Your task to perform on an android device: Open the calendar and show me this week's events? Image 0: 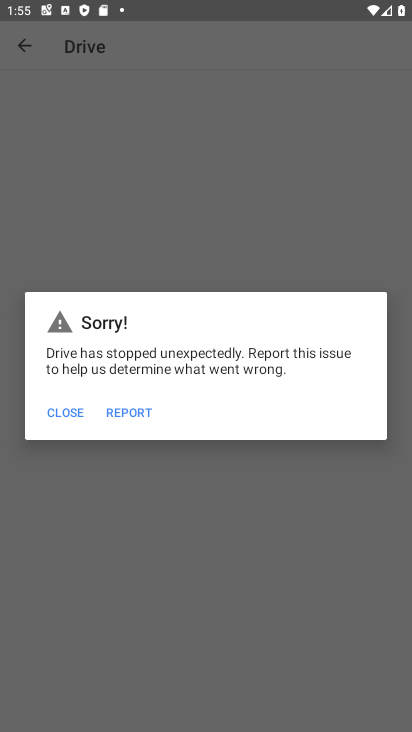
Step 0: press home button
Your task to perform on an android device: Open the calendar and show me this week's events? Image 1: 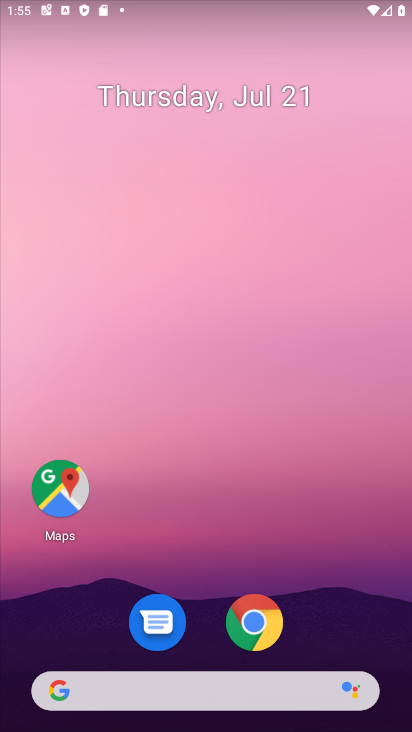
Step 1: drag from (294, 705) to (246, 254)
Your task to perform on an android device: Open the calendar and show me this week's events? Image 2: 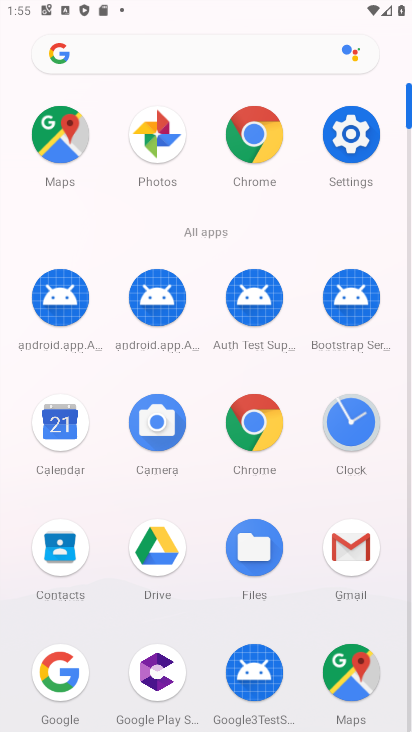
Step 2: click (352, 424)
Your task to perform on an android device: Open the calendar and show me this week's events? Image 3: 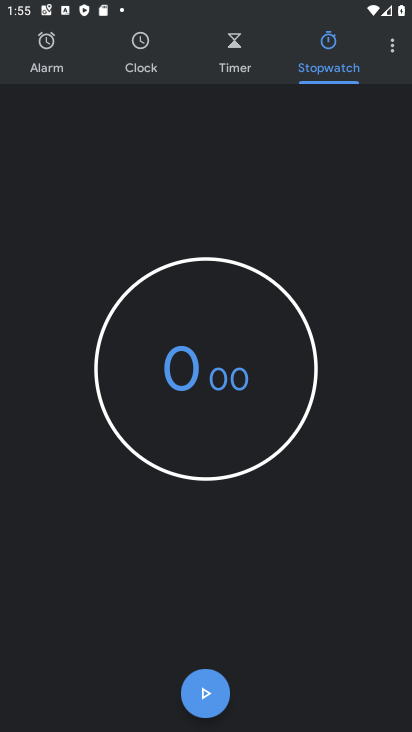
Step 3: press home button
Your task to perform on an android device: Open the calendar and show me this week's events? Image 4: 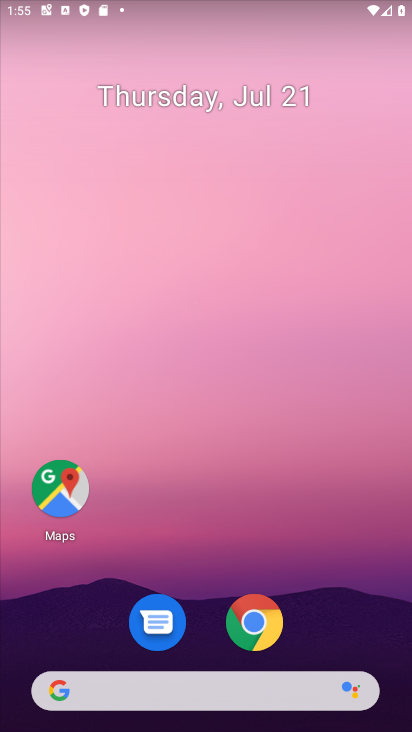
Step 4: drag from (271, 722) to (237, 191)
Your task to perform on an android device: Open the calendar and show me this week's events? Image 5: 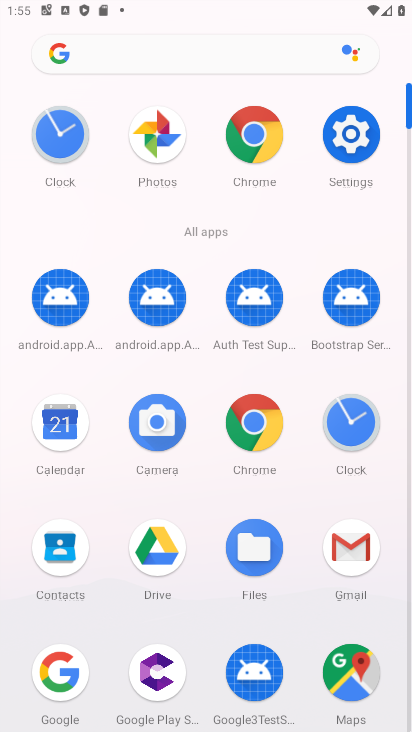
Step 5: click (67, 422)
Your task to perform on an android device: Open the calendar and show me this week's events? Image 6: 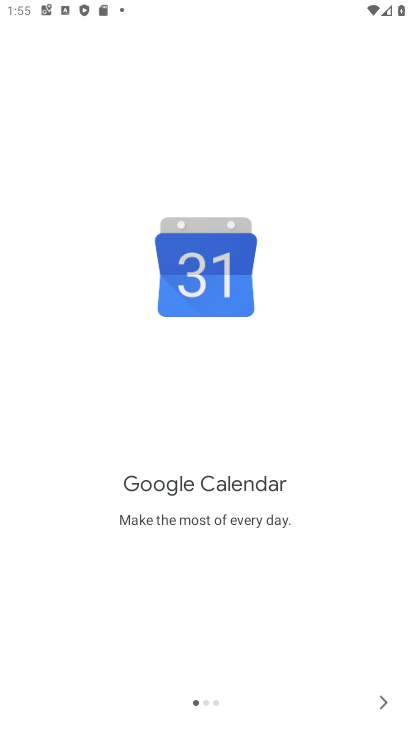
Step 6: click (363, 686)
Your task to perform on an android device: Open the calendar and show me this week's events? Image 7: 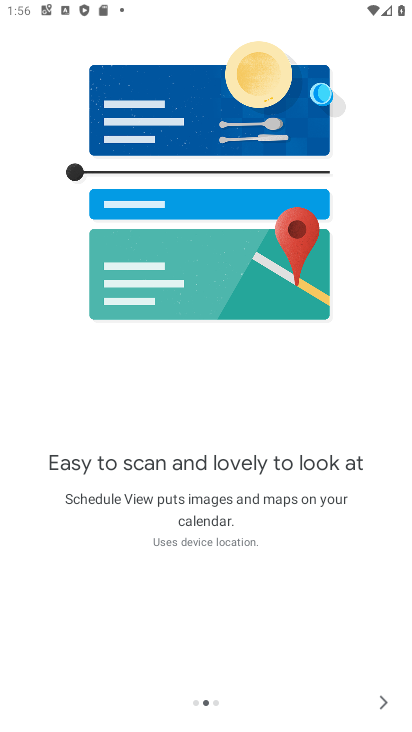
Step 7: click (373, 699)
Your task to perform on an android device: Open the calendar and show me this week's events? Image 8: 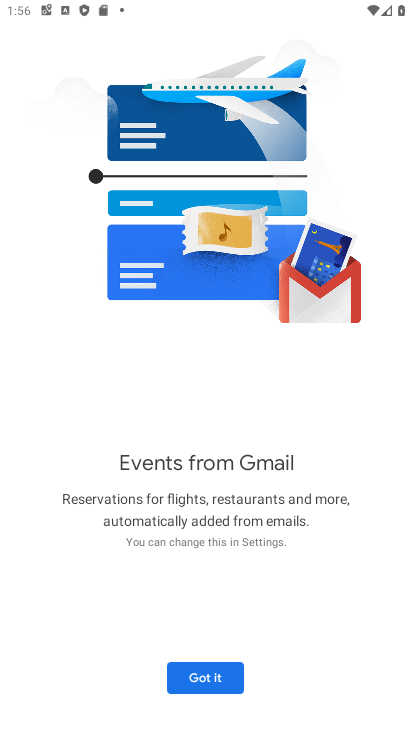
Step 8: click (206, 677)
Your task to perform on an android device: Open the calendar and show me this week's events? Image 9: 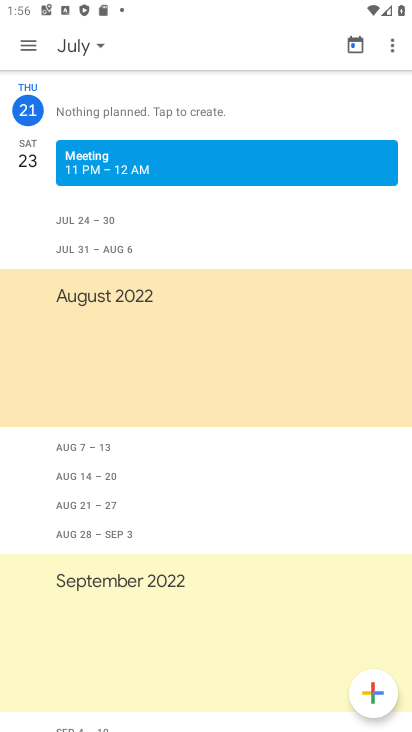
Step 9: click (31, 48)
Your task to perform on an android device: Open the calendar and show me this week's events? Image 10: 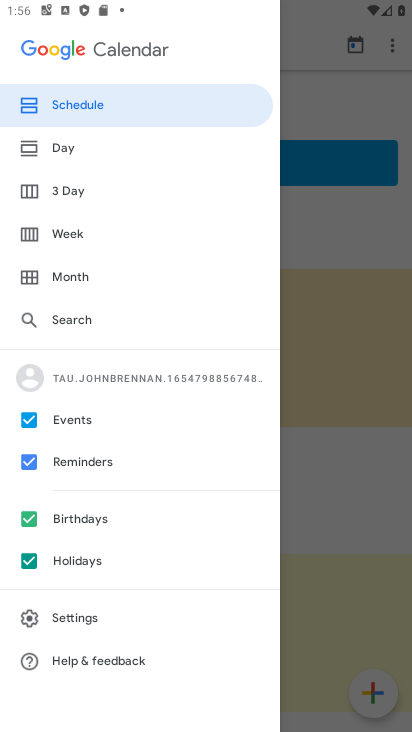
Step 10: click (57, 278)
Your task to perform on an android device: Open the calendar and show me this week's events? Image 11: 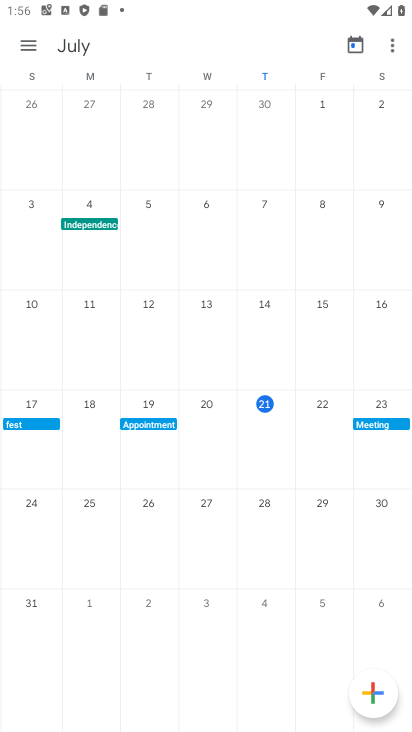
Step 11: click (259, 426)
Your task to perform on an android device: Open the calendar and show me this week's events? Image 12: 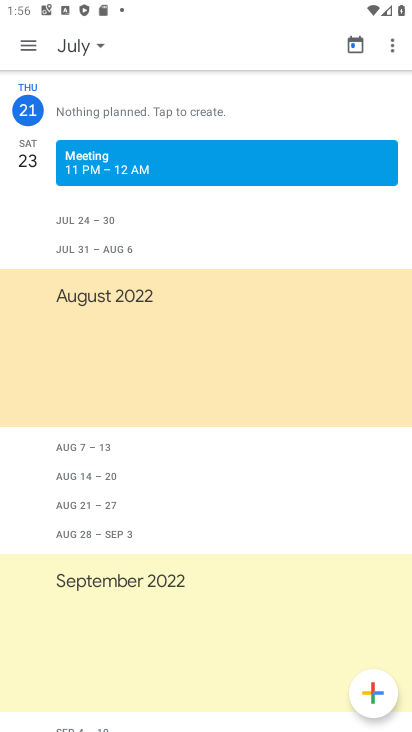
Step 12: task complete